Your task to perform on an android device: turn on bluetooth scan Image 0: 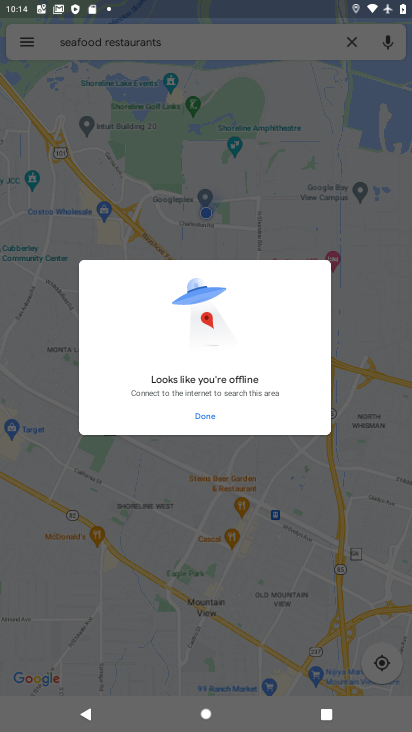
Step 0: press home button
Your task to perform on an android device: turn on bluetooth scan Image 1: 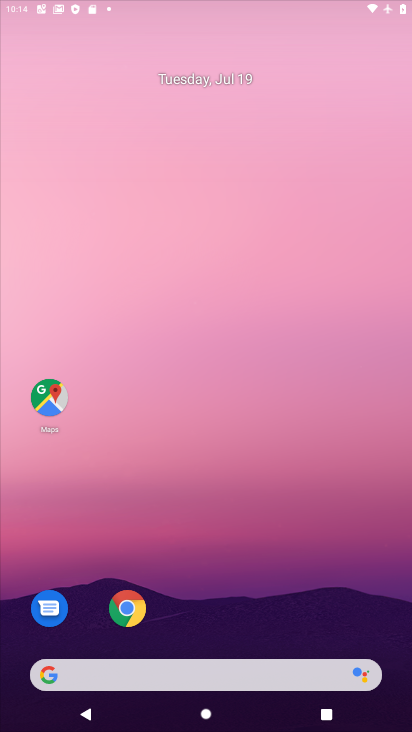
Step 1: drag from (327, 598) to (287, 110)
Your task to perform on an android device: turn on bluetooth scan Image 2: 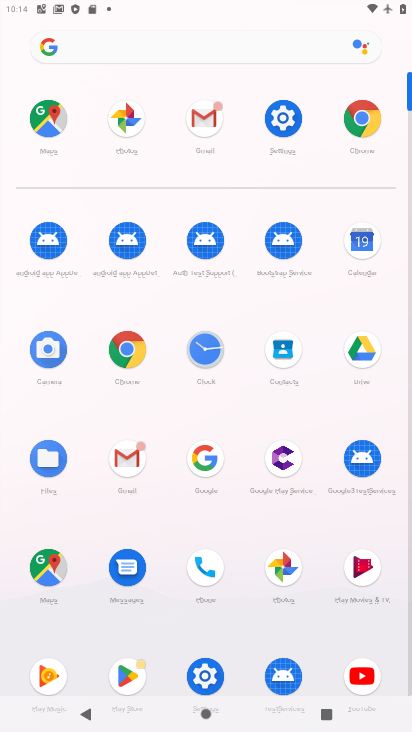
Step 2: click (278, 115)
Your task to perform on an android device: turn on bluetooth scan Image 3: 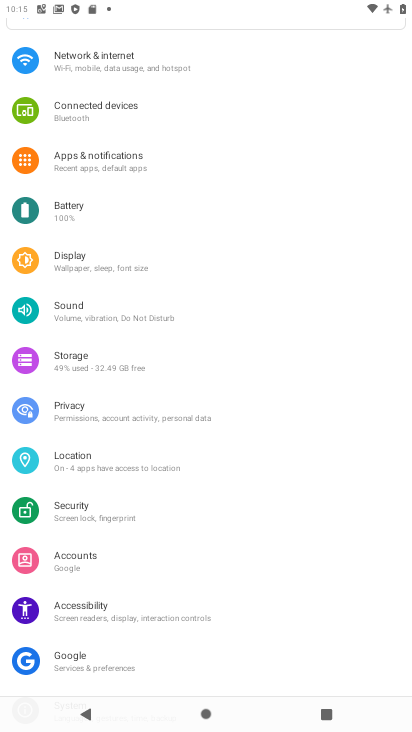
Step 3: drag from (94, 89) to (107, 438)
Your task to perform on an android device: turn on bluetooth scan Image 4: 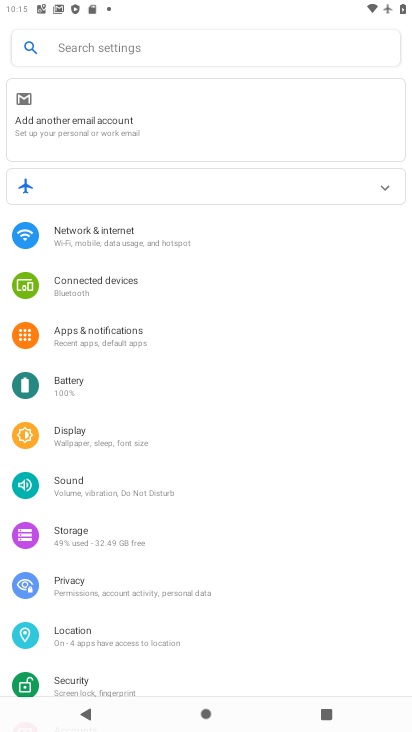
Step 4: click (114, 631)
Your task to perform on an android device: turn on bluetooth scan Image 5: 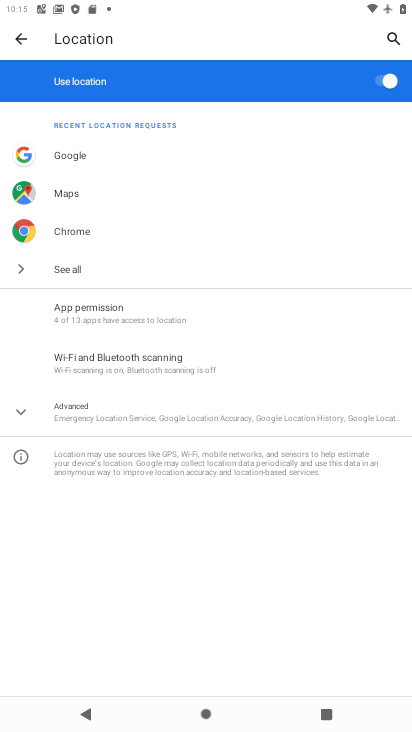
Step 5: click (109, 363)
Your task to perform on an android device: turn on bluetooth scan Image 6: 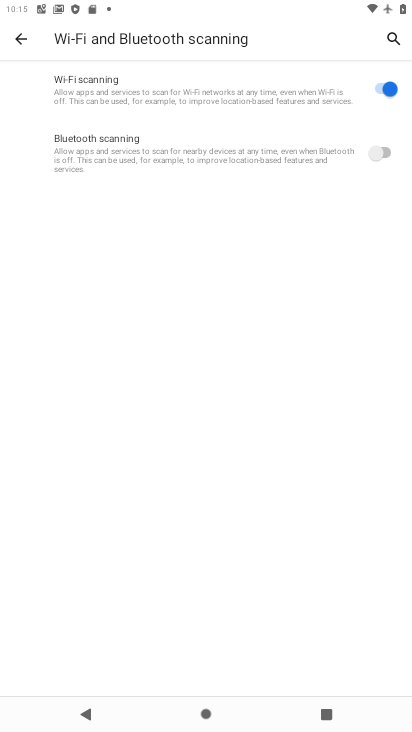
Step 6: click (358, 150)
Your task to perform on an android device: turn on bluetooth scan Image 7: 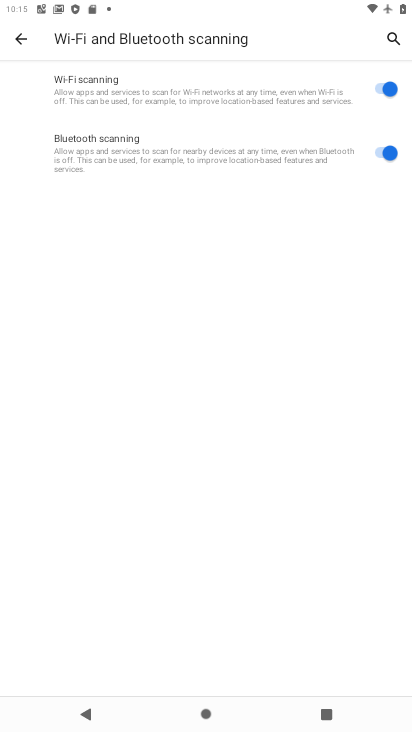
Step 7: task complete